Your task to perform on an android device: Go to settings Image 0: 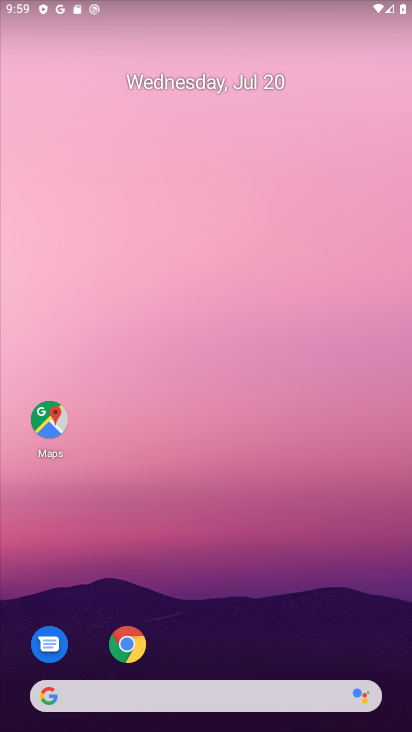
Step 0: drag from (229, 594) to (220, 169)
Your task to perform on an android device: Go to settings Image 1: 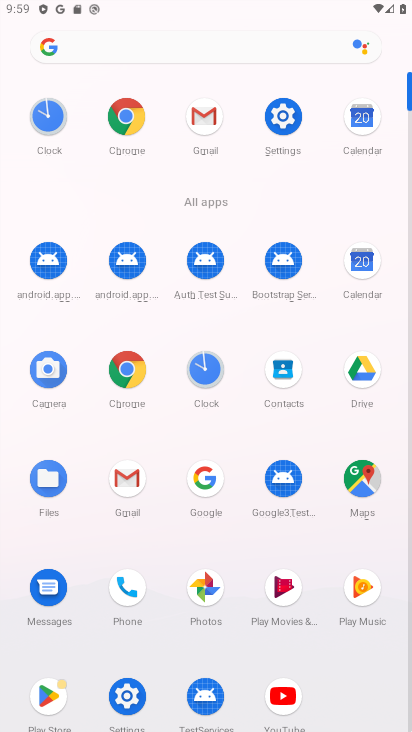
Step 1: click (285, 125)
Your task to perform on an android device: Go to settings Image 2: 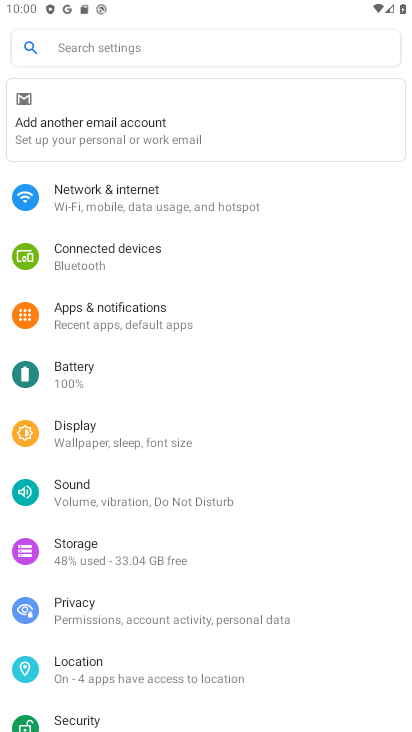
Step 2: task complete